Your task to perform on an android device: turn on data saver in the chrome app Image 0: 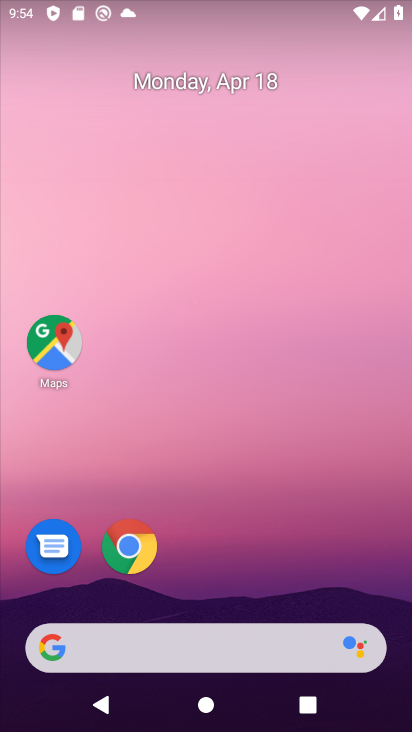
Step 0: click (129, 546)
Your task to perform on an android device: turn on data saver in the chrome app Image 1: 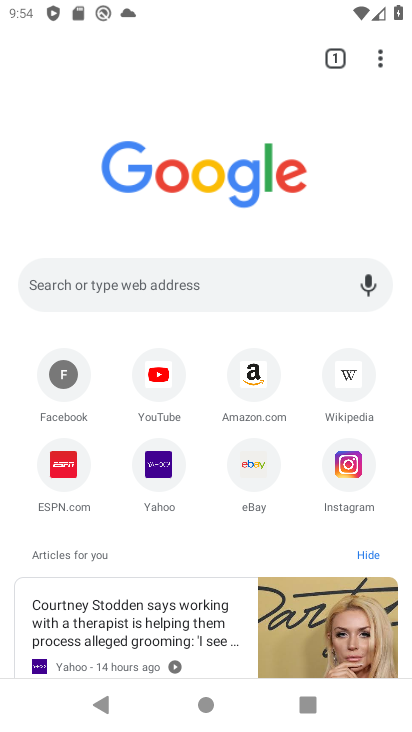
Step 1: click (379, 54)
Your task to perform on an android device: turn on data saver in the chrome app Image 2: 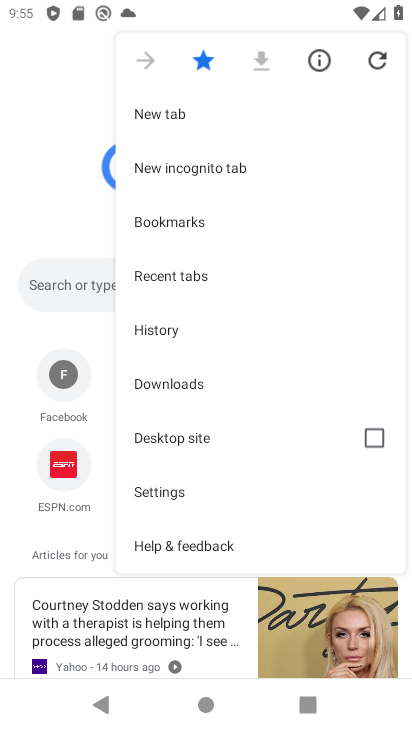
Step 2: click (168, 488)
Your task to perform on an android device: turn on data saver in the chrome app Image 3: 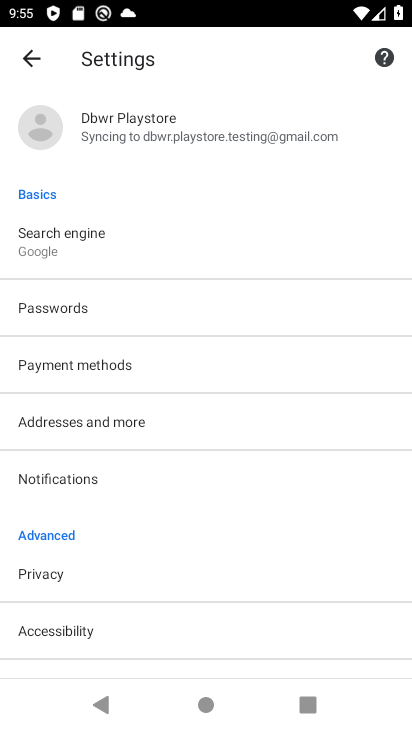
Step 3: drag from (148, 638) to (161, 217)
Your task to perform on an android device: turn on data saver in the chrome app Image 4: 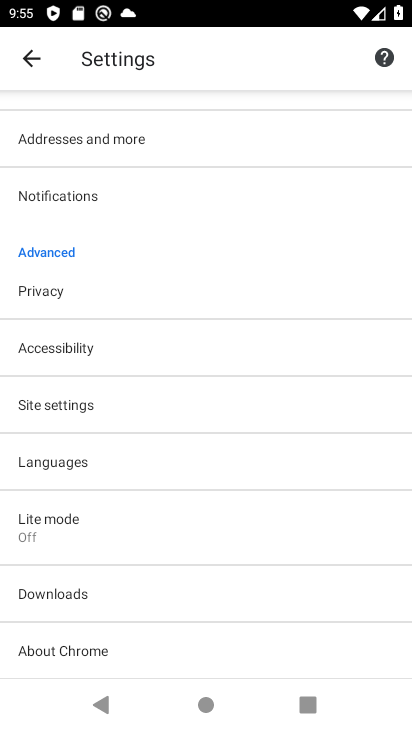
Step 4: click (53, 524)
Your task to perform on an android device: turn on data saver in the chrome app Image 5: 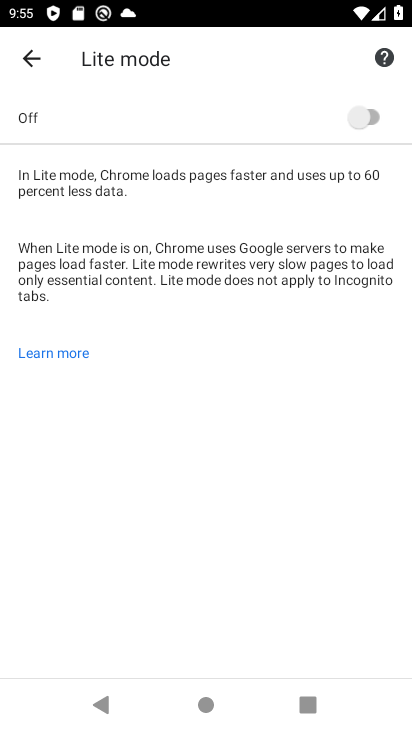
Step 5: click (371, 116)
Your task to perform on an android device: turn on data saver in the chrome app Image 6: 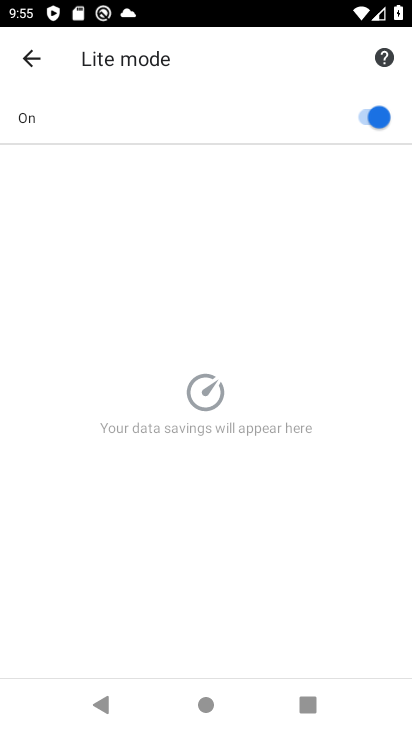
Step 6: task complete